Your task to perform on an android device: Open calendar and show me the fourth week of next month Image 0: 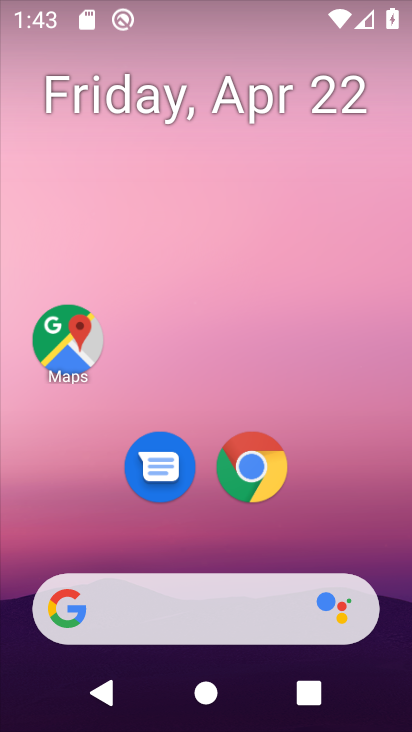
Step 0: drag from (361, 487) to (393, 119)
Your task to perform on an android device: Open calendar and show me the fourth week of next month Image 1: 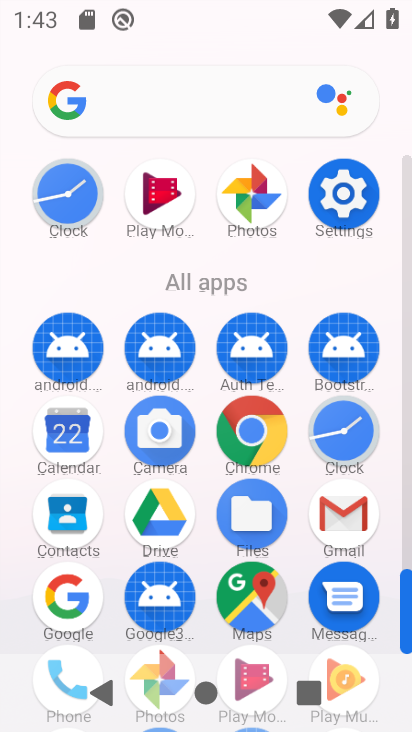
Step 1: click (85, 438)
Your task to perform on an android device: Open calendar and show me the fourth week of next month Image 2: 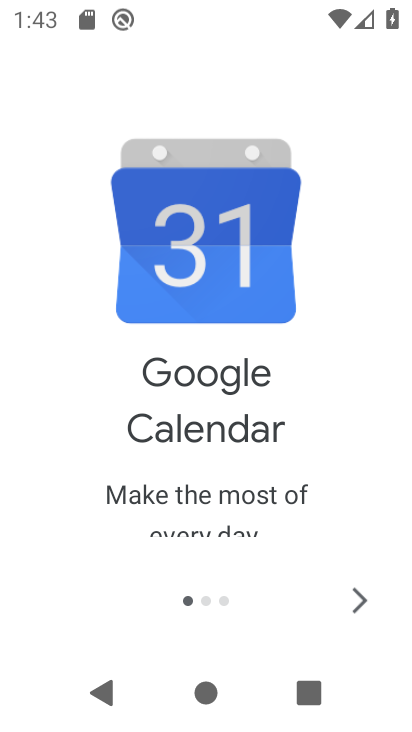
Step 2: click (355, 600)
Your task to perform on an android device: Open calendar and show me the fourth week of next month Image 3: 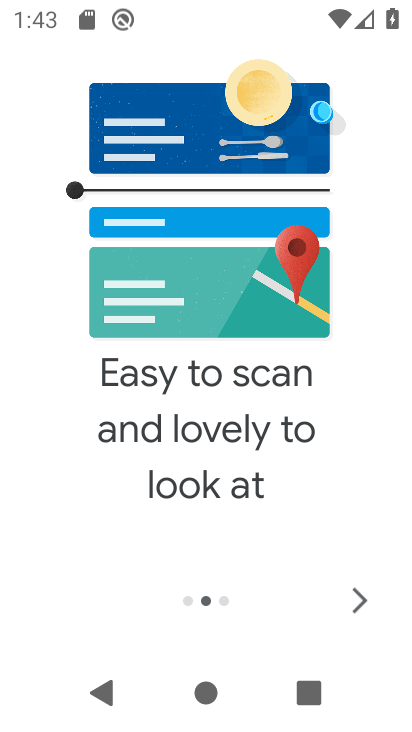
Step 3: click (355, 600)
Your task to perform on an android device: Open calendar and show me the fourth week of next month Image 4: 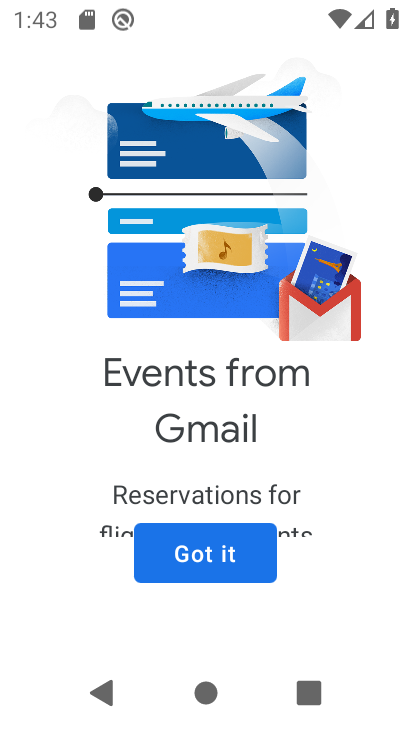
Step 4: click (253, 576)
Your task to perform on an android device: Open calendar and show me the fourth week of next month Image 5: 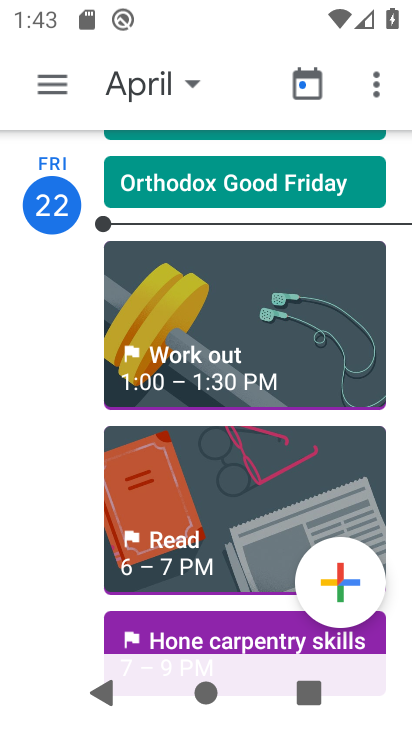
Step 5: click (184, 79)
Your task to perform on an android device: Open calendar and show me the fourth week of next month Image 6: 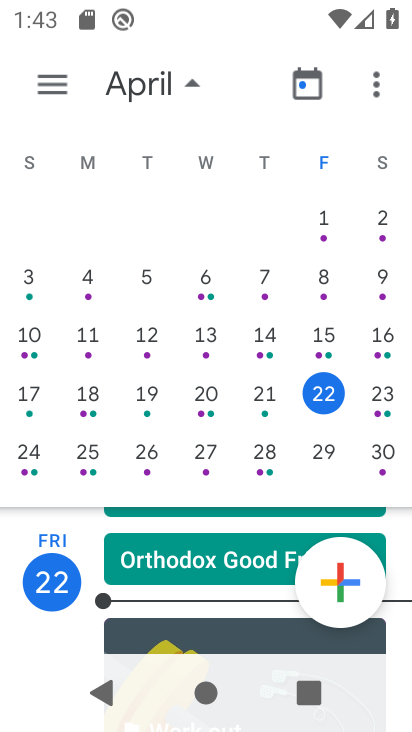
Step 6: drag from (339, 442) to (104, 416)
Your task to perform on an android device: Open calendar and show me the fourth week of next month Image 7: 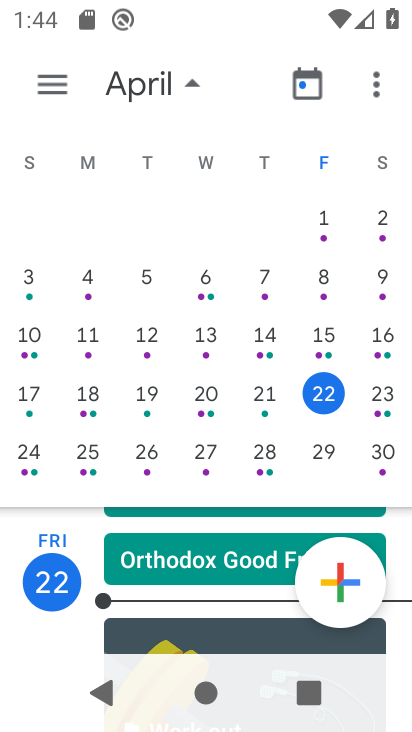
Step 7: click (373, 404)
Your task to perform on an android device: Open calendar and show me the fourth week of next month Image 8: 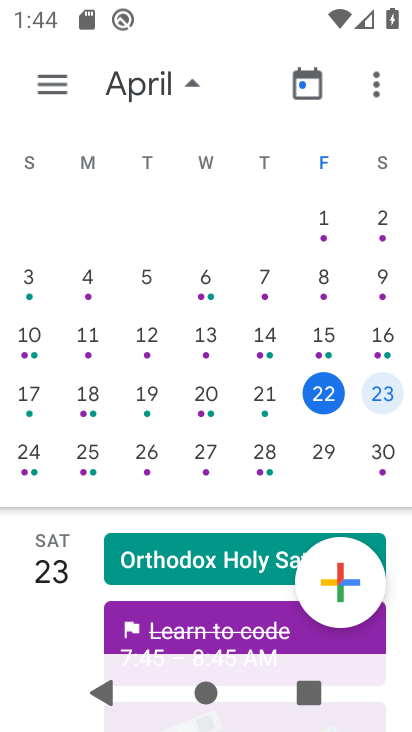
Step 8: task complete